Your task to perform on an android device: empty trash in the gmail app Image 0: 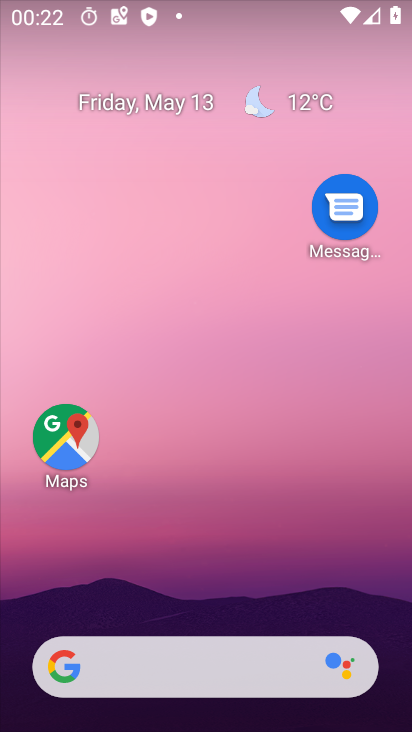
Step 0: press home button
Your task to perform on an android device: empty trash in the gmail app Image 1: 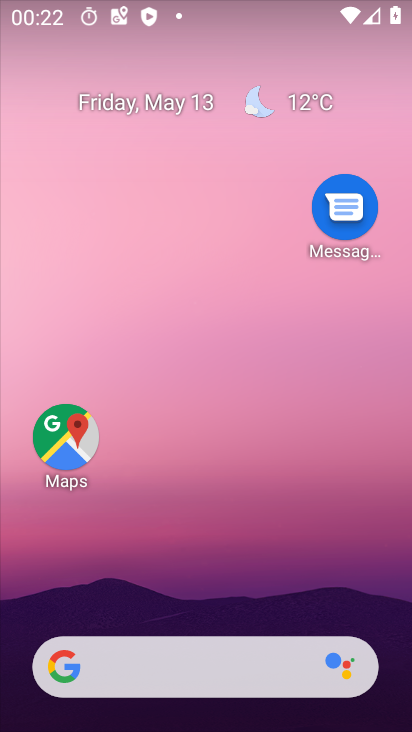
Step 1: press home button
Your task to perform on an android device: empty trash in the gmail app Image 2: 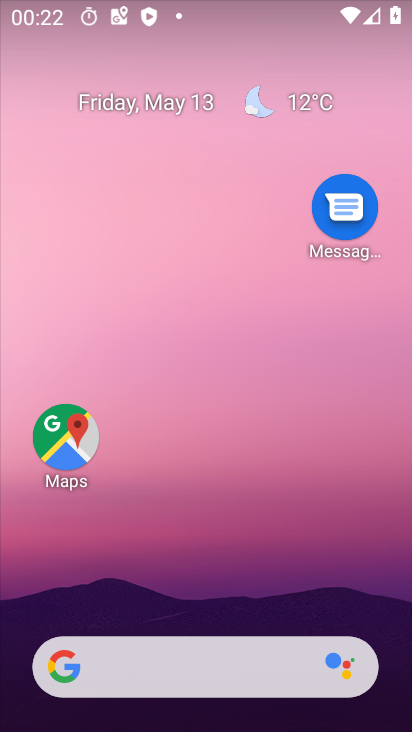
Step 2: drag from (298, 502) to (300, 16)
Your task to perform on an android device: empty trash in the gmail app Image 3: 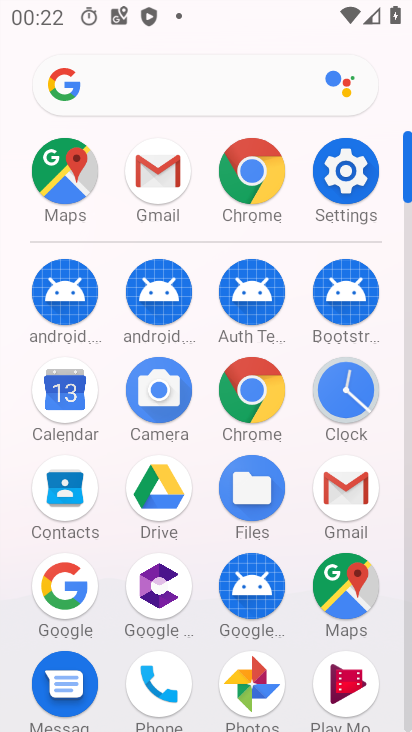
Step 3: click (153, 137)
Your task to perform on an android device: empty trash in the gmail app Image 4: 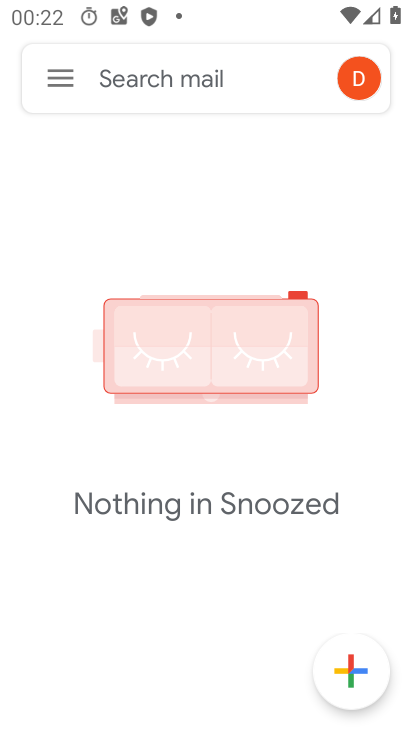
Step 4: click (72, 71)
Your task to perform on an android device: empty trash in the gmail app Image 5: 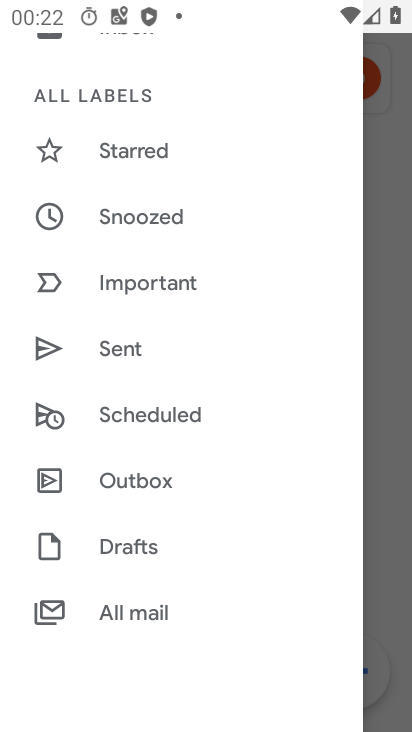
Step 5: click (60, 78)
Your task to perform on an android device: empty trash in the gmail app Image 6: 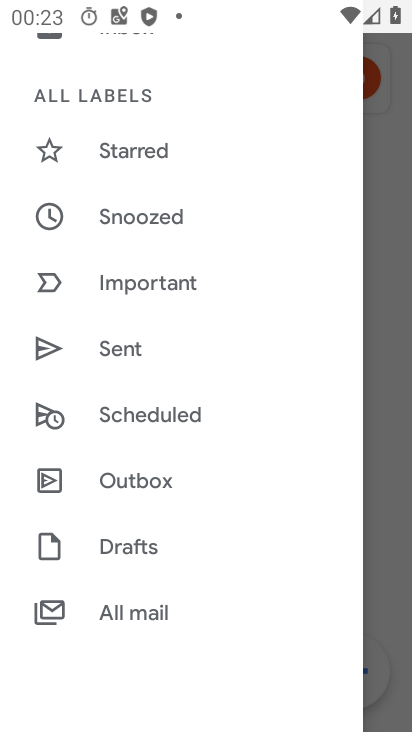
Step 6: drag from (172, 171) to (176, 356)
Your task to perform on an android device: empty trash in the gmail app Image 7: 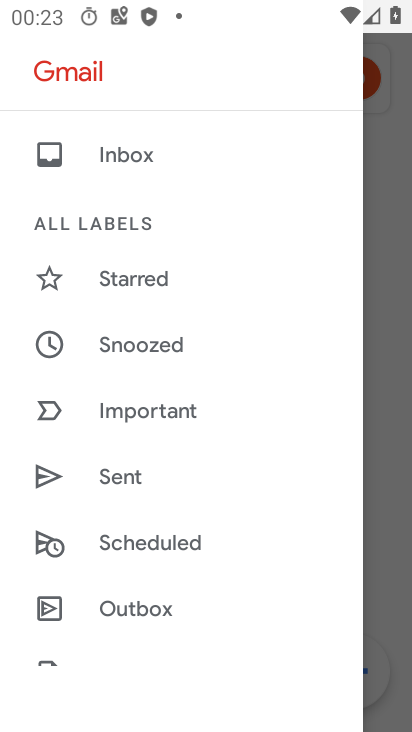
Step 7: drag from (206, 177) to (266, 656)
Your task to perform on an android device: empty trash in the gmail app Image 8: 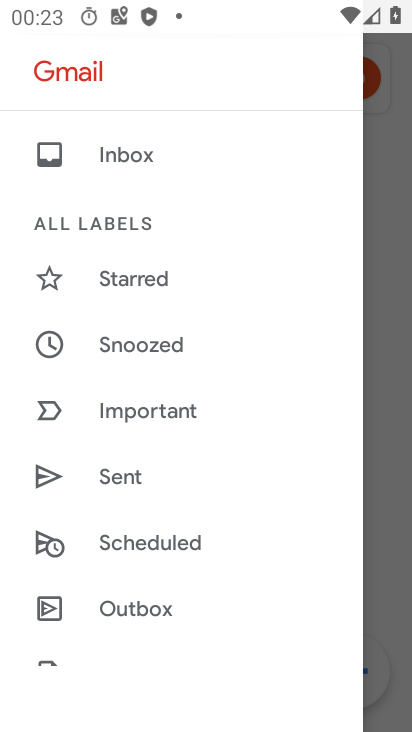
Step 8: drag from (290, 444) to (215, 173)
Your task to perform on an android device: empty trash in the gmail app Image 9: 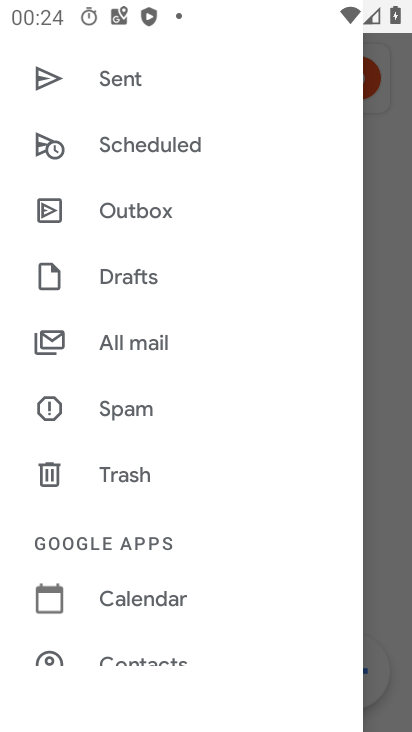
Step 9: click (165, 462)
Your task to perform on an android device: empty trash in the gmail app Image 10: 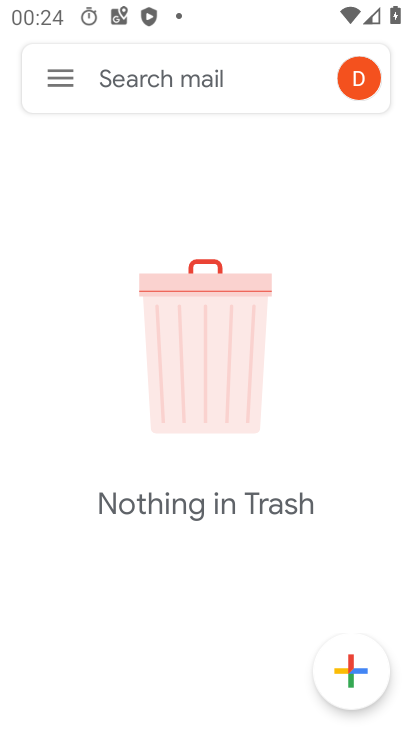
Step 10: task complete